Your task to perform on an android device: change the upload size in google photos Image 0: 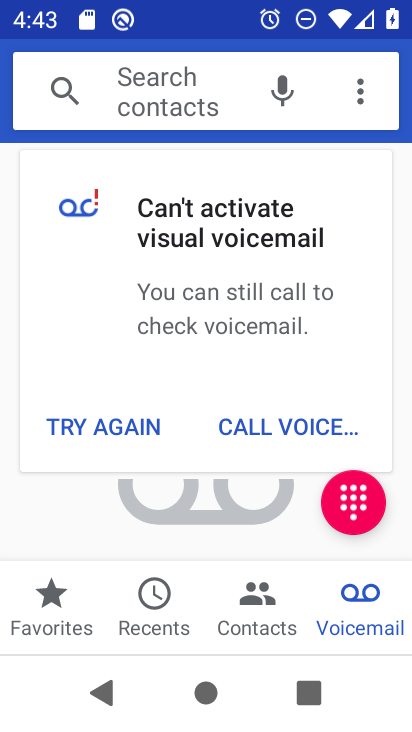
Step 0: press home button
Your task to perform on an android device: change the upload size in google photos Image 1: 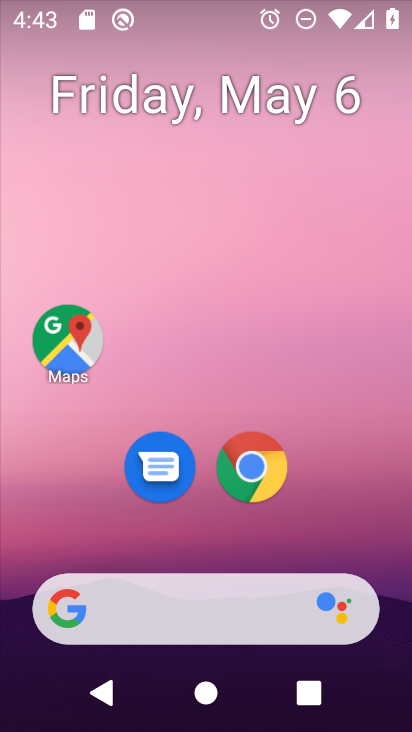
Step 1: drag from (311, 499) to (306, 113)
Your task to perform on an android device: change the upload size in google photos Image 2: 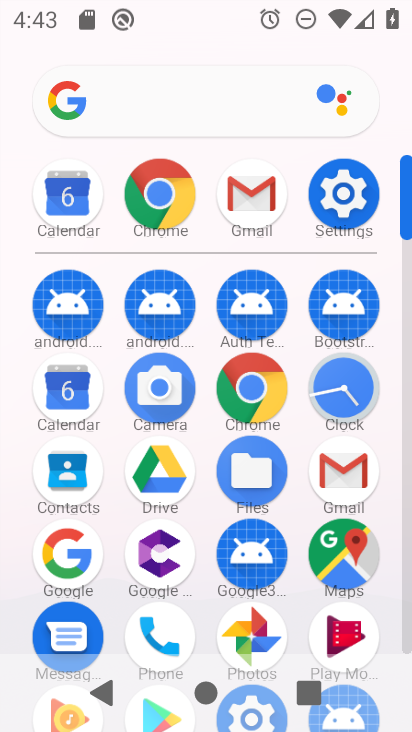
Step 2: click (272, 617)
Your task to perform on an android device: change the upload size in google photos Image 3: 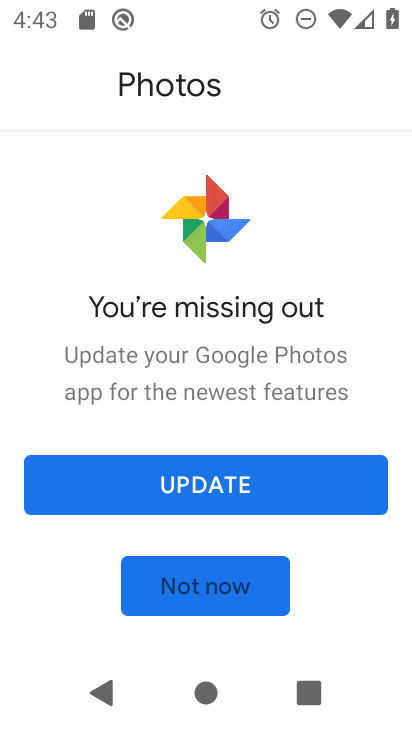
Step 3: click (248, 581)
Your task to perform on an android device: change the upload size in google photos Image 4: 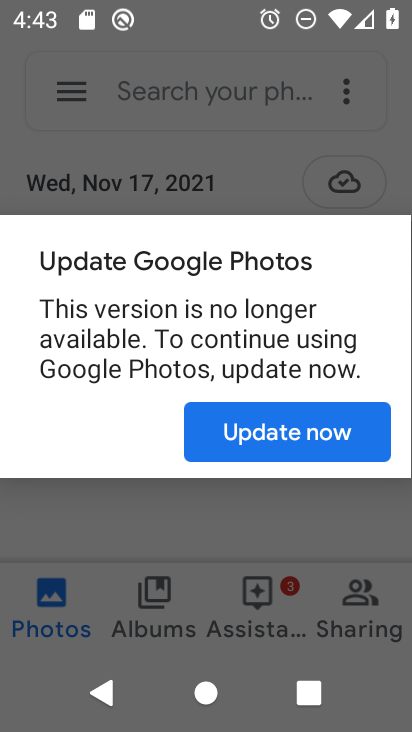
Step 4: click (287, 435)
Your task to perform on an android device: change the upload size in google photos Image 5: 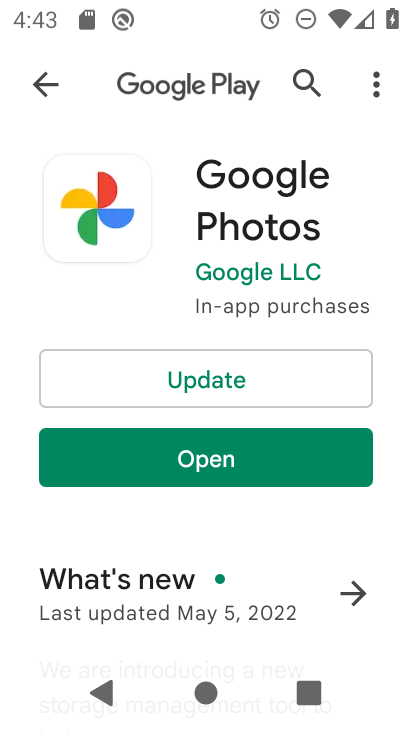
Step 5: click (185, 433)
Your task to perform on an android device: change the upload size in google photos Image 6: 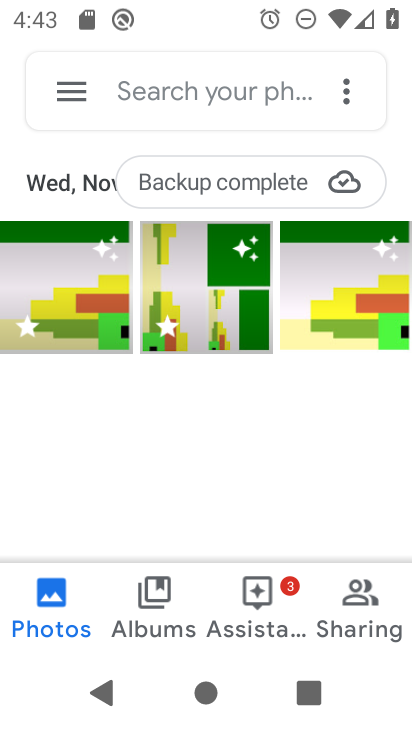
Step 6: click (72, 89)
Your task to perform on an android device: change the upload size in google photos Image 7: 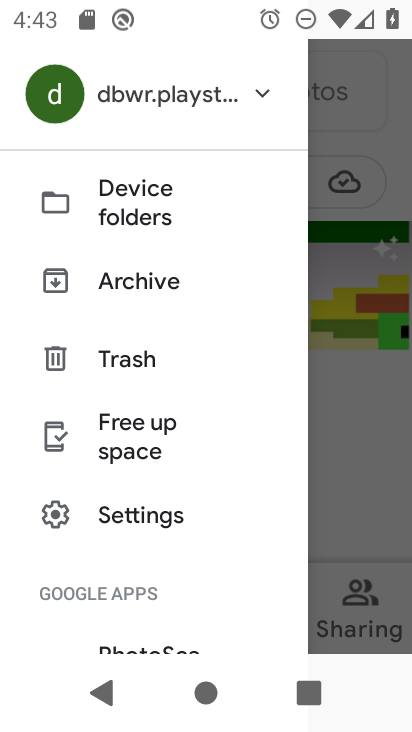
Step 7: click (154, 525)
Your task to perform on an android device: change the upload size in google photos Image 8: 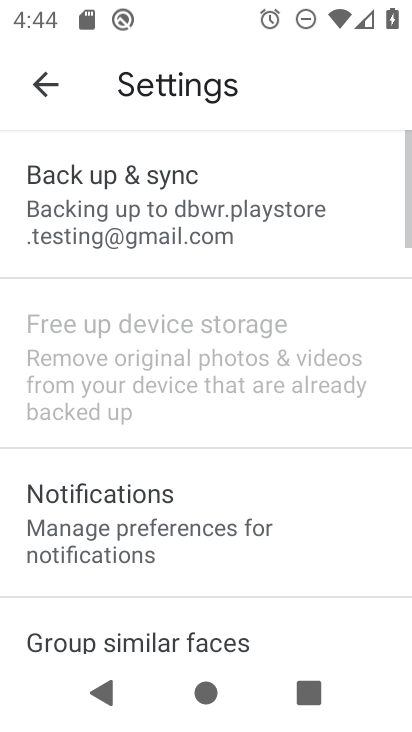
Step 8: click (117, 190)
Your task to perform on an android device: change the upload size in google photos Image 9: 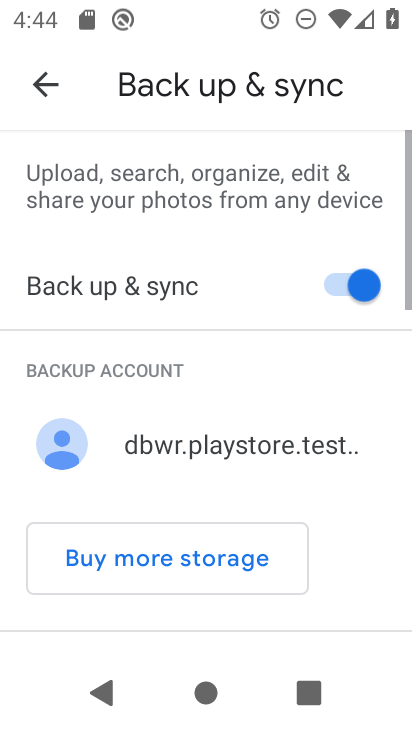
Step 9: drag from (221, 451) to (205, 191)
Your task to perform on an android device: change the upload size in google photos Image 10: 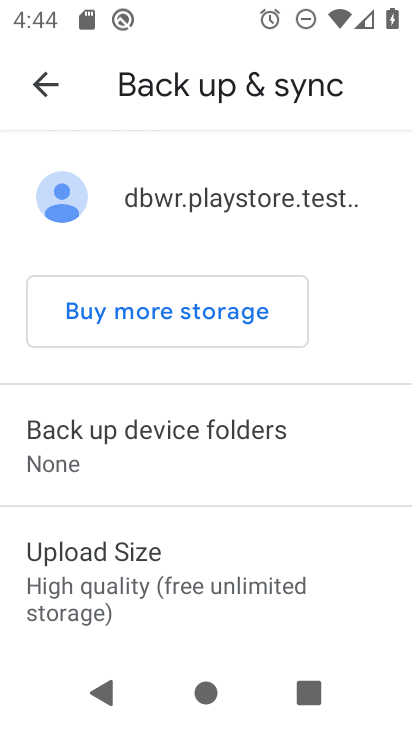
Step 10: click (172, 581)
Your task to perform on an android device: change the upload size in google photos Image 11: 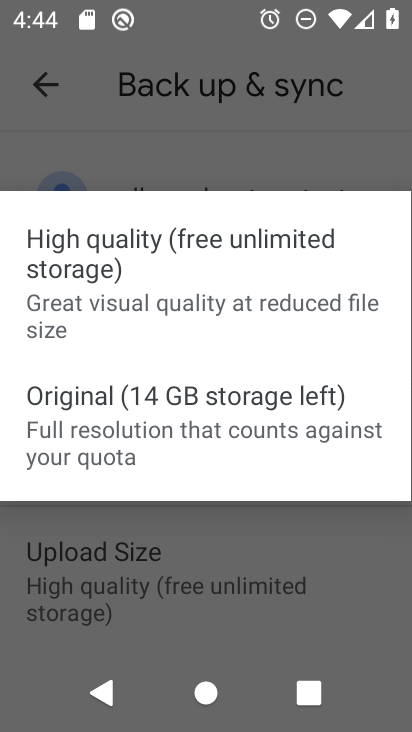
Step 11: click (210, 417)
Your task to perform on an android device: change the upload size in google photos Image 12: 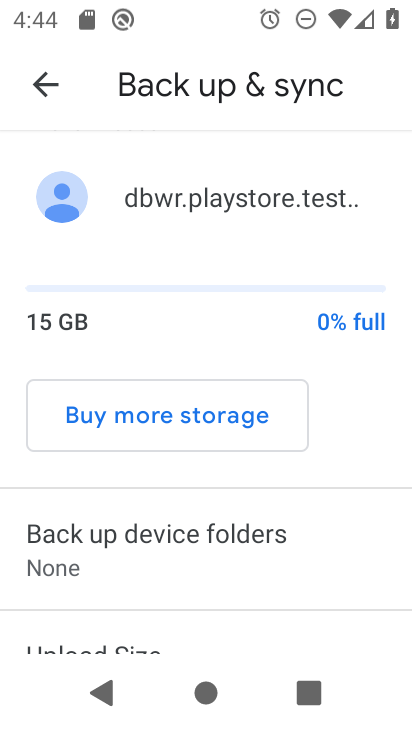
Step 12: task complete